Your task to perform on an android device: empty trash in google photos Image 0: 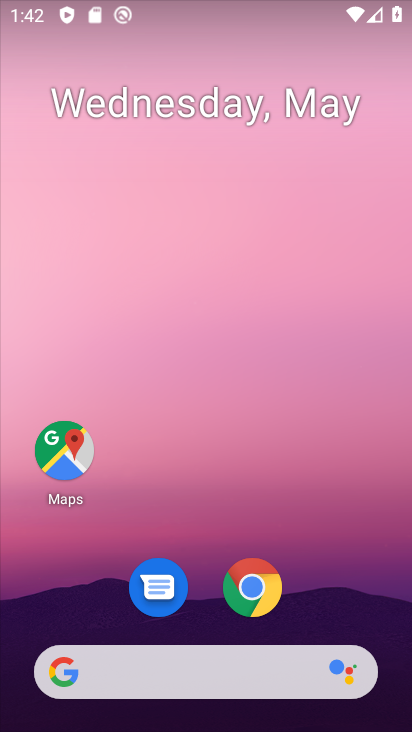
Step 0: drag from (229, 636) to (202, 155)
Your task to perform on an android device: empty trash in google photos Image 1: 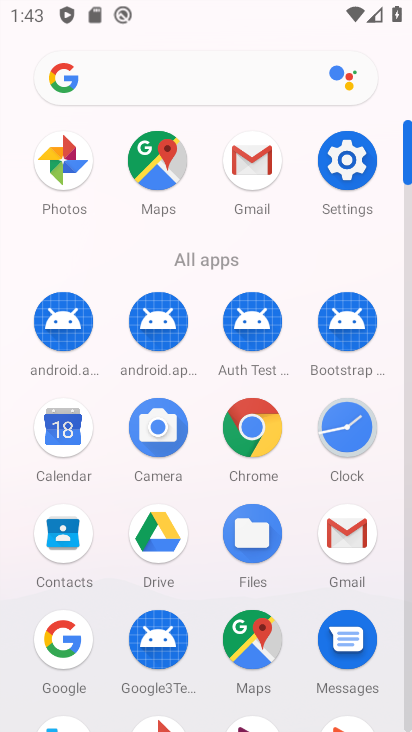
Step 1: click (312, 518)
Your task to perform on an android device: empty trash in google photos Image 2: 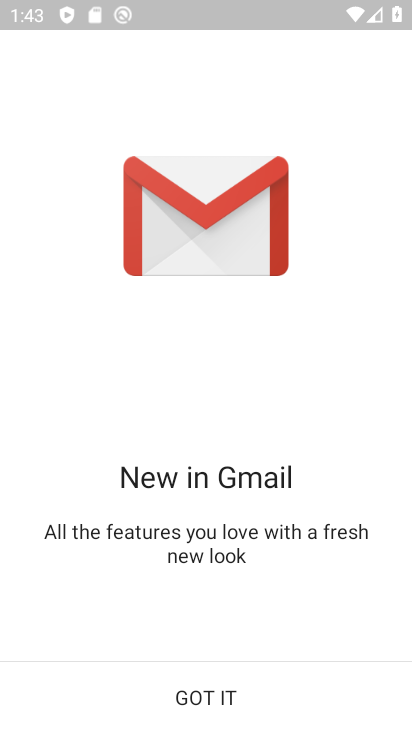
Step 2: click (231, 661)
Your task to perform on an android device: empty trash in google photos Image 3: 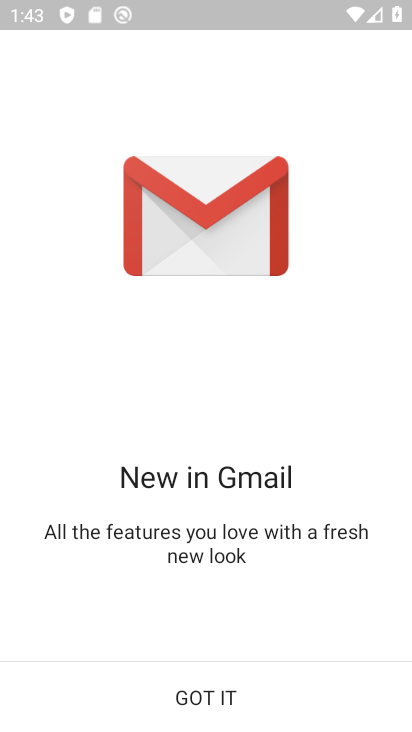
Step 3: click (222, 693)
Your task to perform on an android device: empty trash in google photos Image 4: 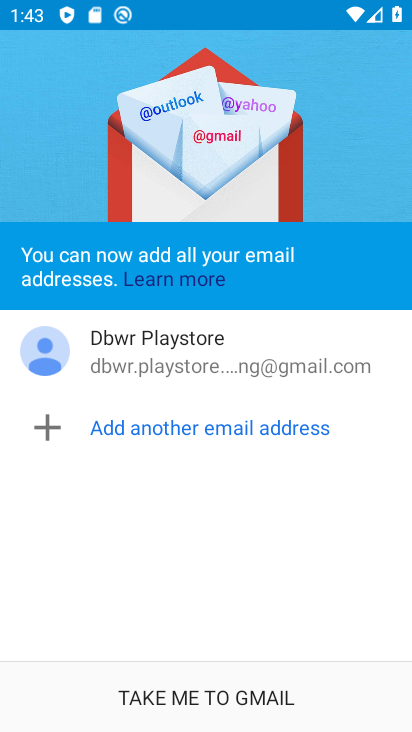
Step 4: click (199, 689)
Your task to perform on an android device: empty trash in google photos Image 5: 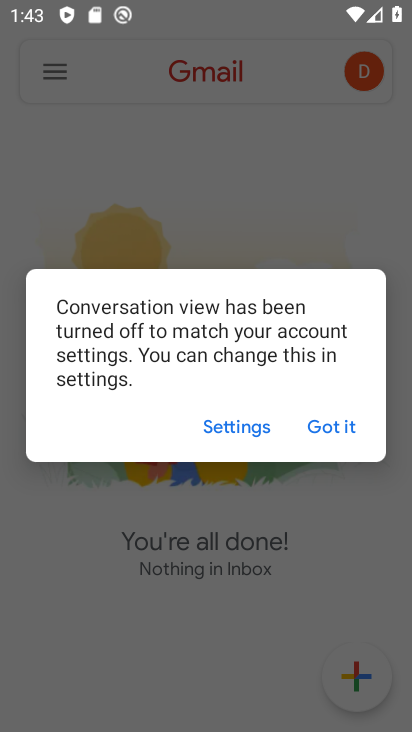
Step 5: click (328, 413)
Your task to perform on an android device: empty trash in google photos Image 6: 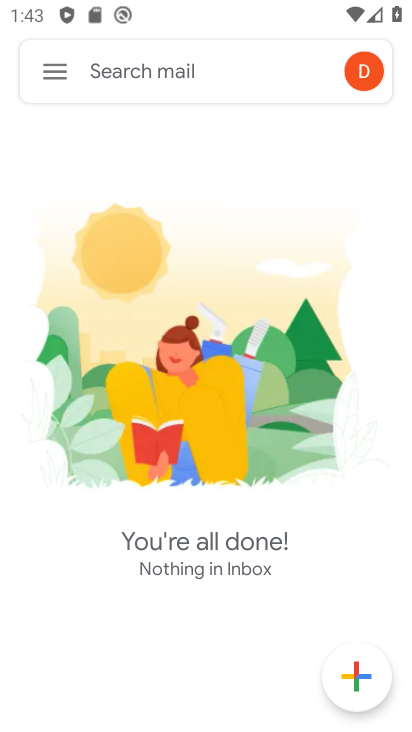
Step 6: click (54, 78)
Your task to perform on an android device: empty trash in google photos Image 7: 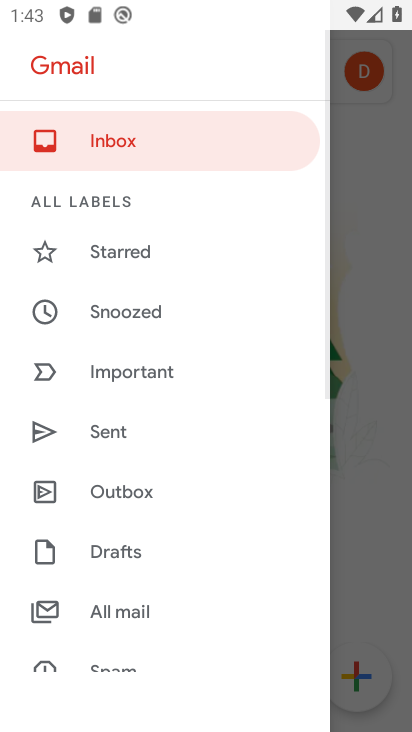
Step 7: drag from (141, 555) to (76, 180)
Your task to perform on an android device: empty trash in google photos Image 8: 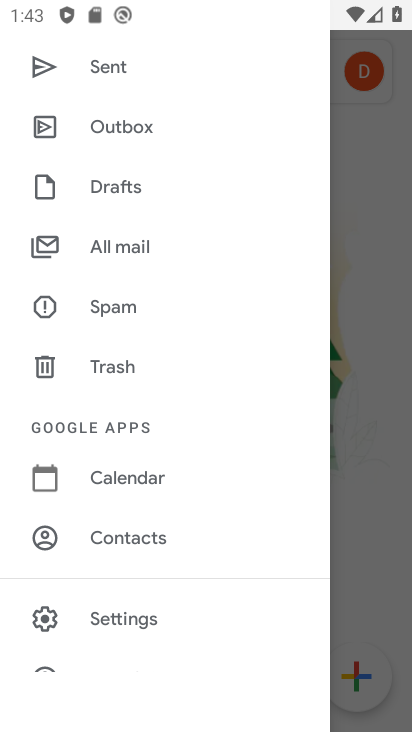
Step 8: click (104, 382)
Your task to perform on an android device: empty trash in google photos Image 9: 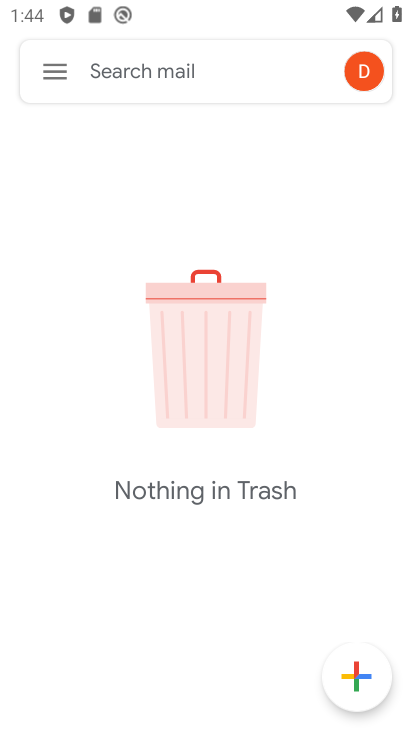
Step 9: task complete